Your task to perform on an android device: toggle show notifications on the lock screen Image 0: 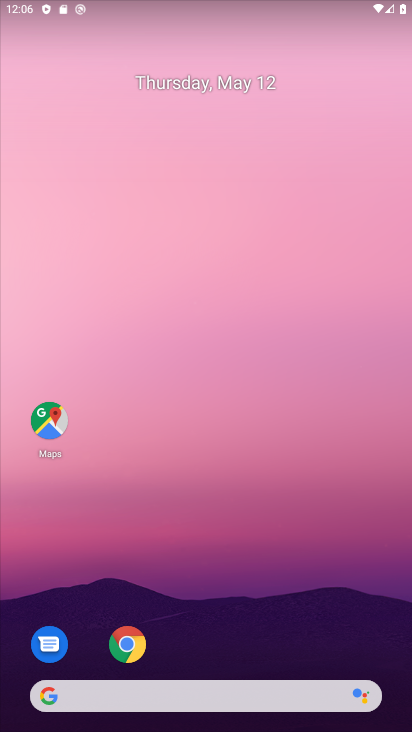
Step 0: drag from (230, 572) to (180, 73)
Your task to perform on an android device: toggle show notifications on the lock screen Image 1: 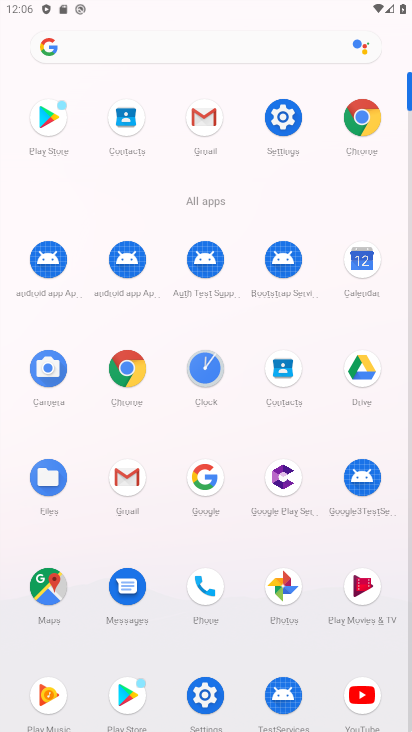
Step 1: click (278, 117)
Your task to perform on an android device: toggle show notifications on the lock screen Image 2: 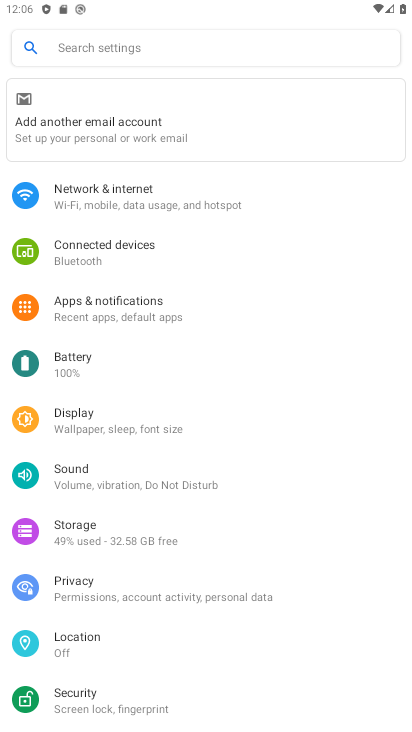
Step 2: click (122, 317)
Your task to perform on an android device: toggle show notifications on the lock screen Image 3: 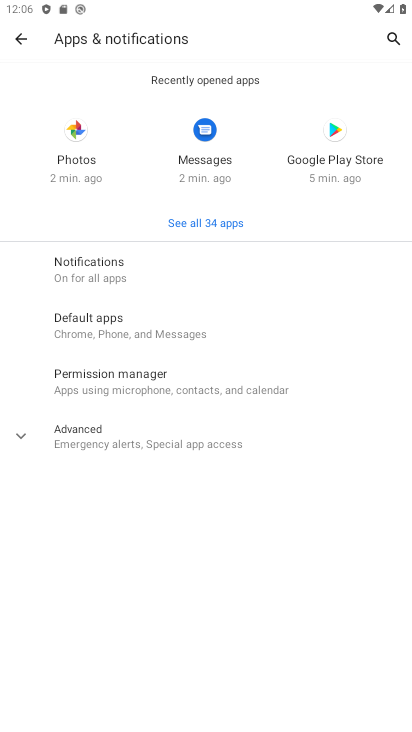
Step 3: click (136, 274)
Your task to perform on an android device: toggle show notifications on the lock screen Image 4: 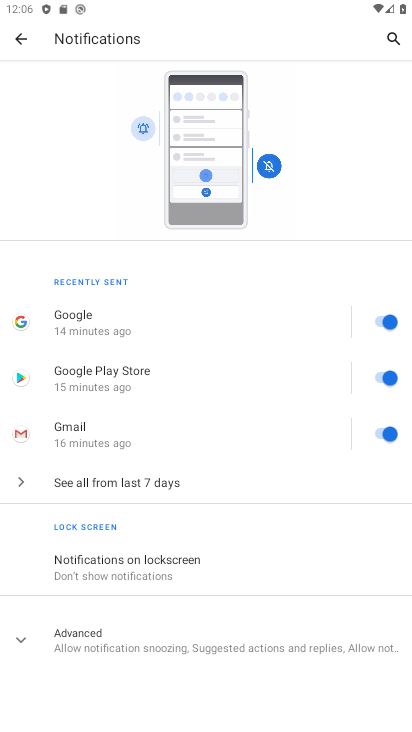
Step 4: click (210, 581)
Your task to perform on an android device: toggle show notifications on the lock screen Image 5: 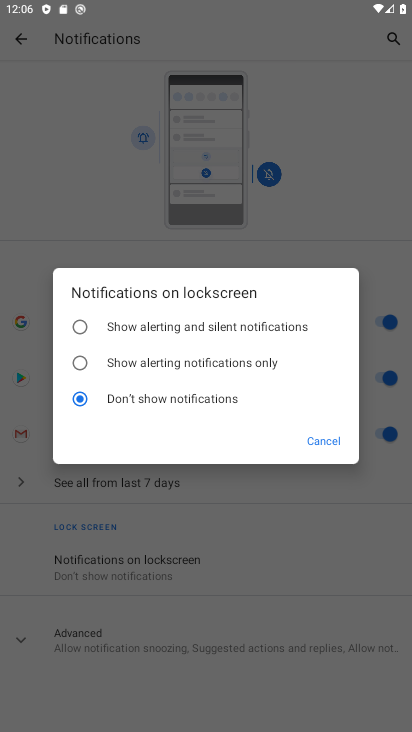
Step 5: click (185, 329)
Your task to perform on an android device: toggle show notifications on the lock screen Image 6: 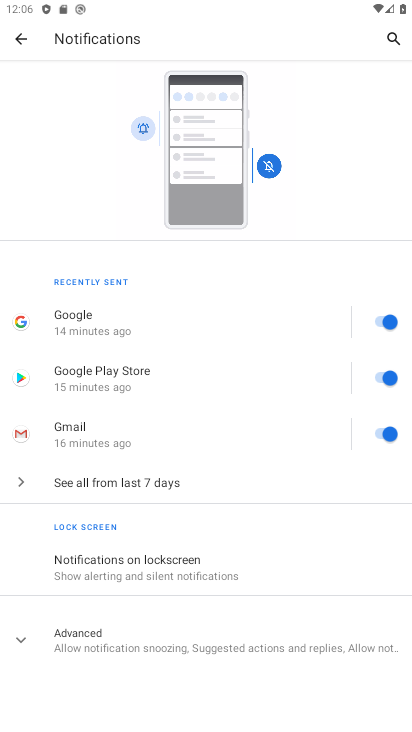
Step 6: task complete